Your task to perform on an android device: all mails in gmail Image 0: 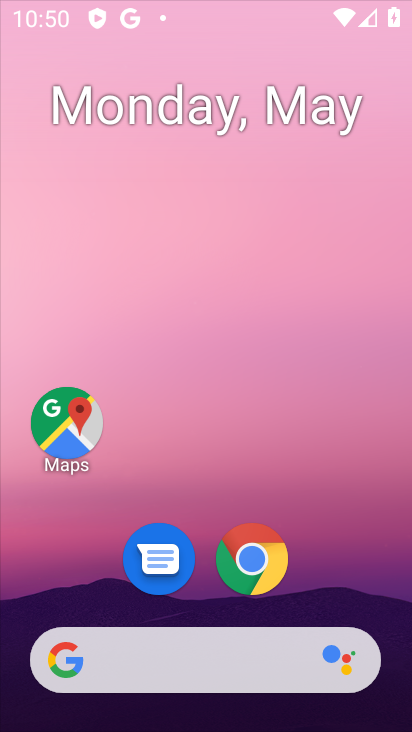
Step 0: drag from (106, 553) to (187, 124)
Your task to perform on an android device: all mails in gmail Image 1: 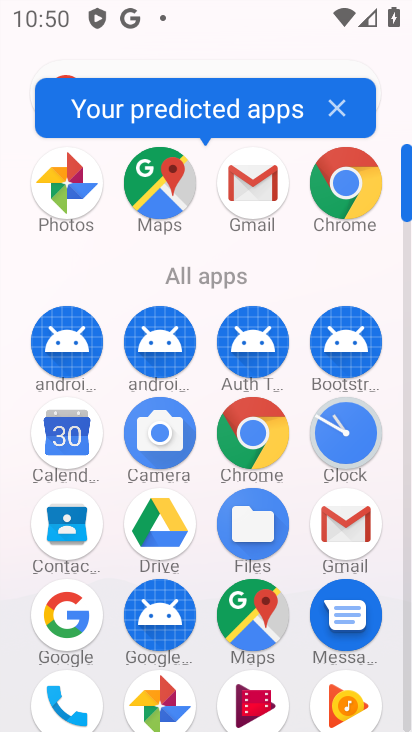
Step 1: click (352, 547)
Your task to perform on an android device: all mails in gmail Image 2: 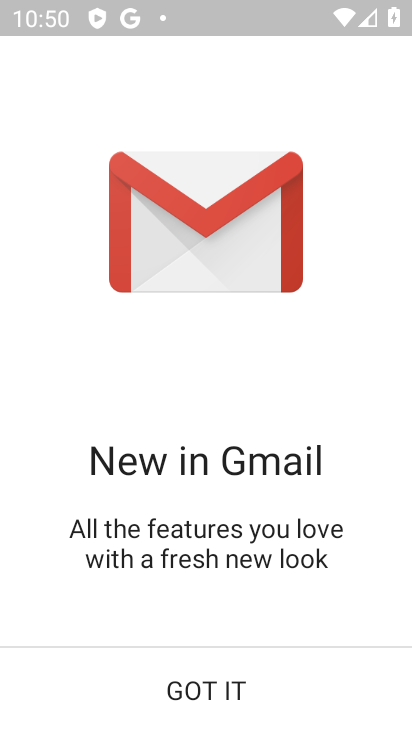
Step 2: click (273, 692)
Your task to perform on an android device: all mails in gmail Image 3: 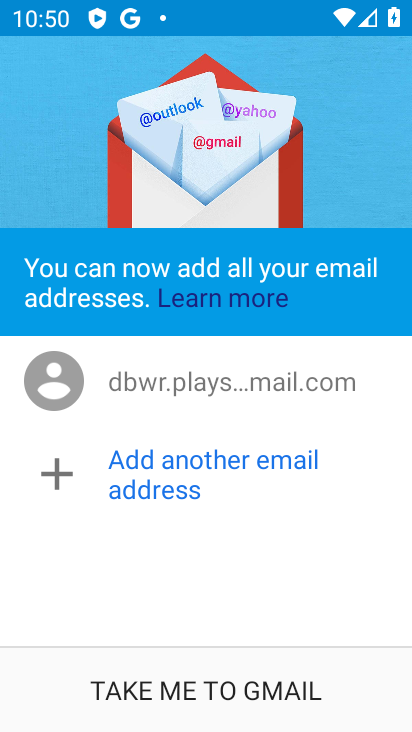
Step 3: click (273, 691)
Your task to perform on an android device: all mails in gmail Image 4: 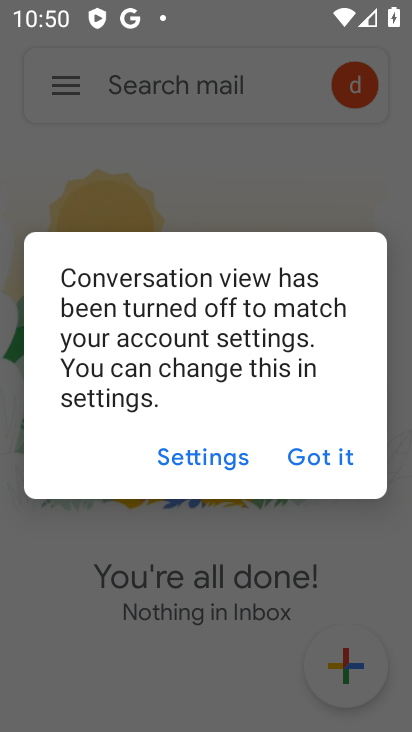
Step 4: click (340, 477)
Your task to perform on an android device: all mails in gmail Image 5: 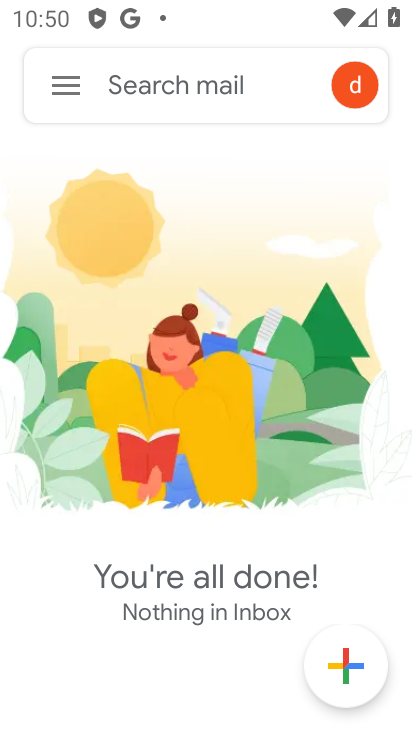
Step 5: click (91, 100)
Your task to perform on an android device: all mails in gmail Image 6: 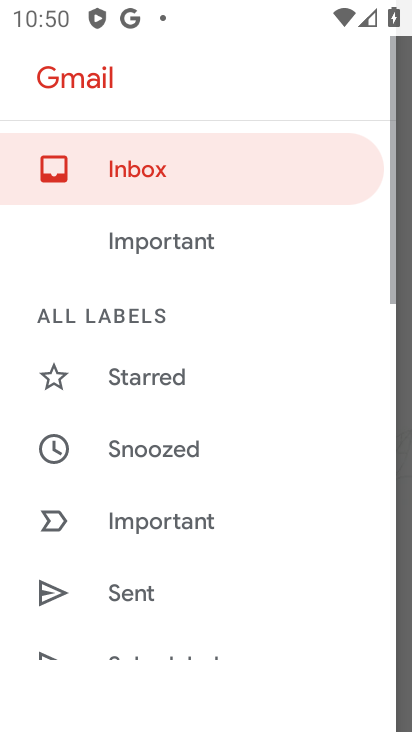
Step 6: drag from (173, 606) to (252, 213)
Your task to perform on an android device: all mails in gmail Image 7: 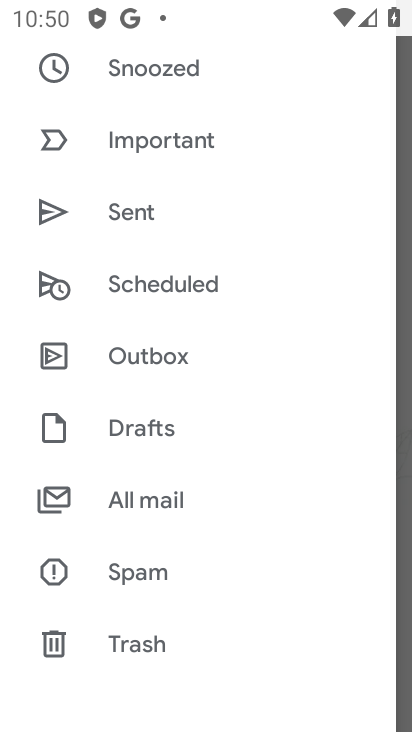
Step 7: click (191, 508)
Your task to perform on an android device: all mails in gmail Image 8: 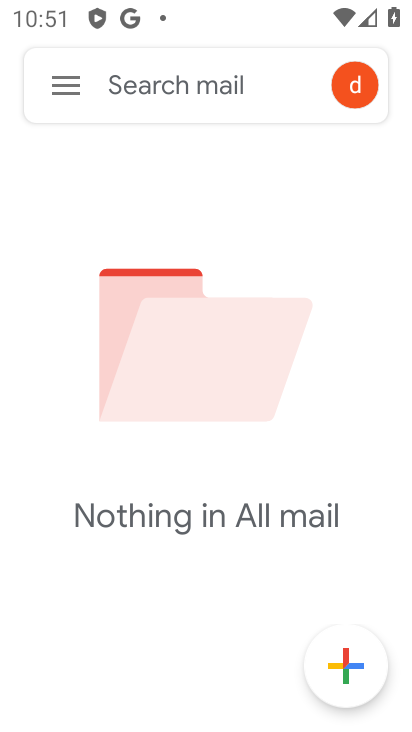
Step 8: task complete